Your task to perform on an android device: empty trash in the gmail app Image 0: 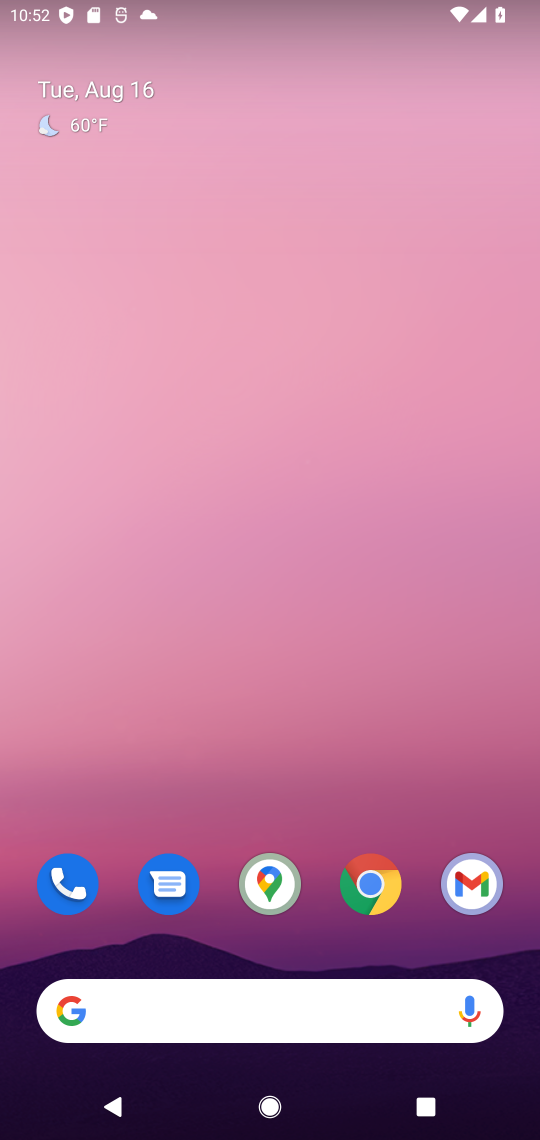
Step 0: click (473, 890)
Your task to perform on an android device: empty trash in the gmail app Image 1: 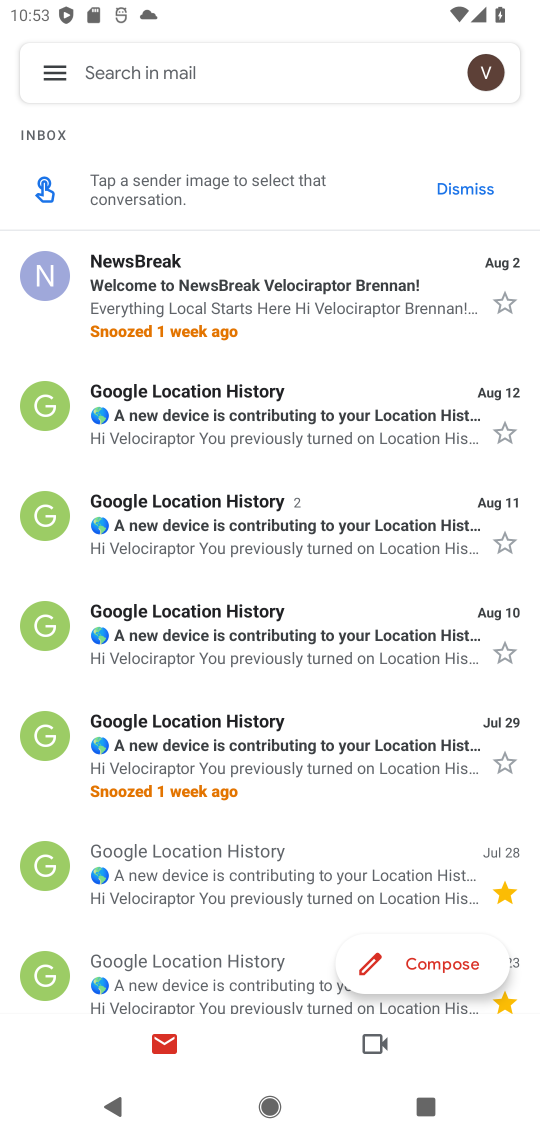
Step 1: click (53, 82)
Your task to perform on an android device: empty trash in the gmail app Image 2: 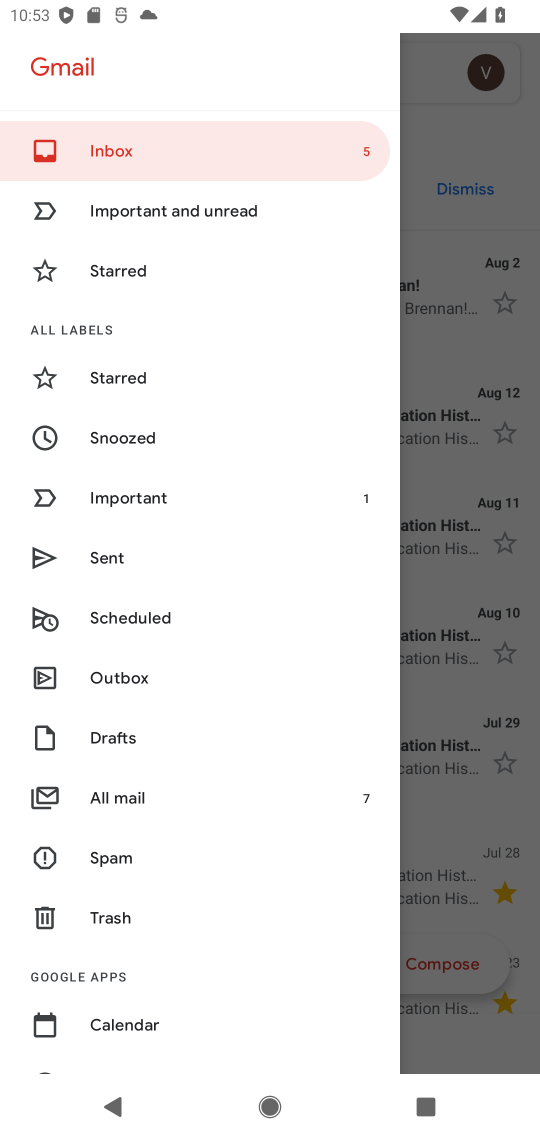
Step 2: click (109, 920)
Your task to perform on an android device: empty trash in the gmail app Image 3: 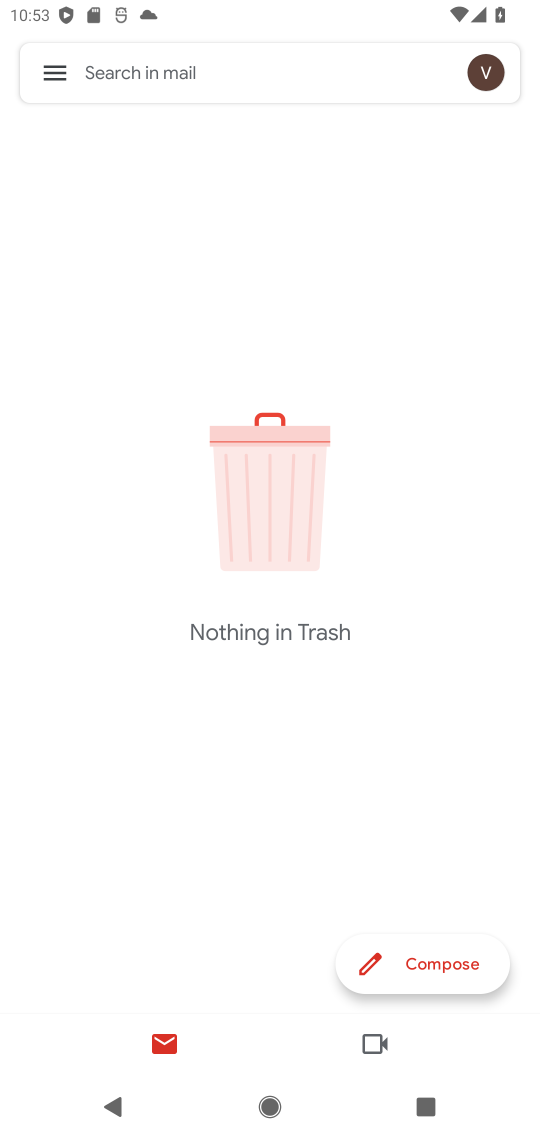
Step 3: task complete